Your task to perform on an android device: Go to location settings Image 0: 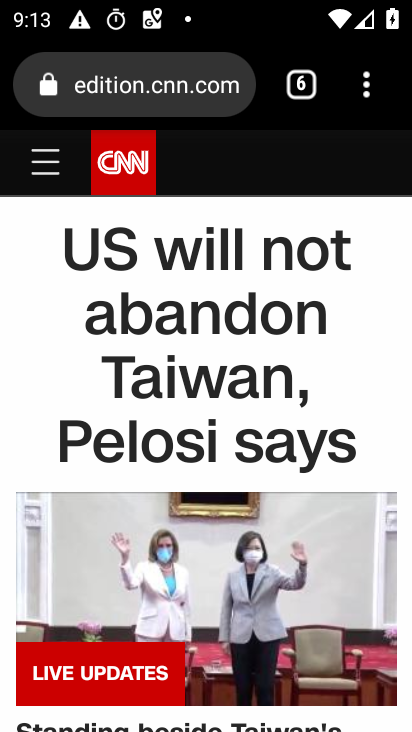
Step 0: press home button
Your task to perform on an android device: Go to location settings Image 1: 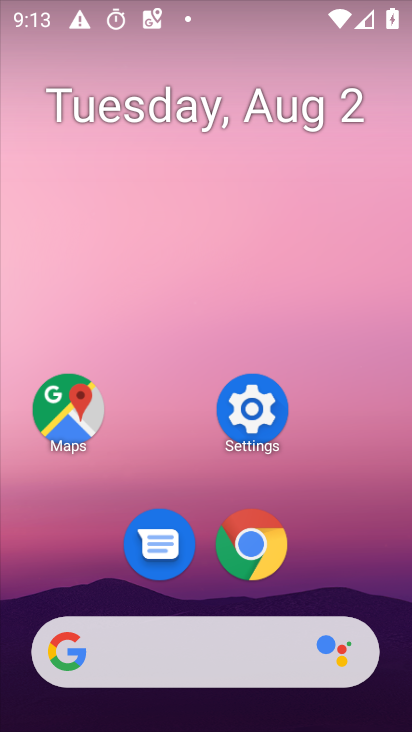
Step 1: click (261, 398)
Your task to perform on an android device: Go to location settings Image 2: 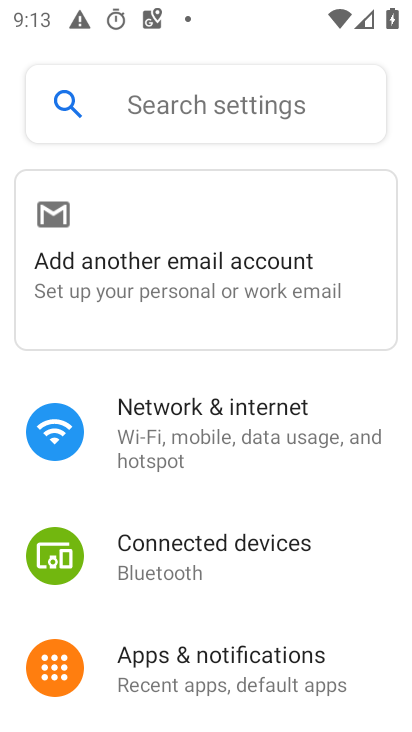
Step 2: drag from (157, 682) to (338, 216)
Your task to perform on an android device: Go to location settings Image 3: 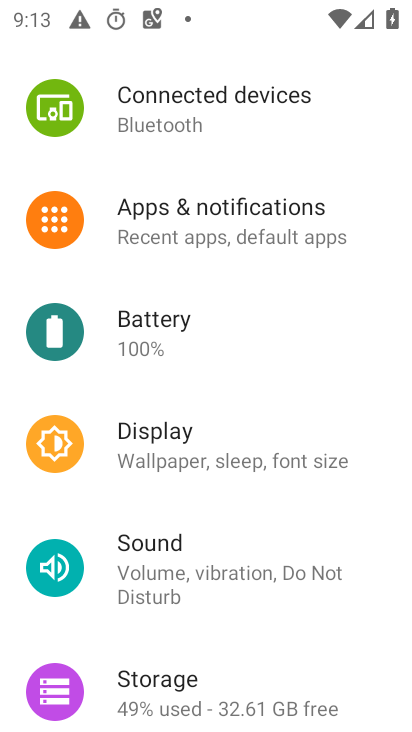
Step 3: drag from (172, 650) to (253, 130)
Your task to perform on an android device: Go to location settings Image 4: 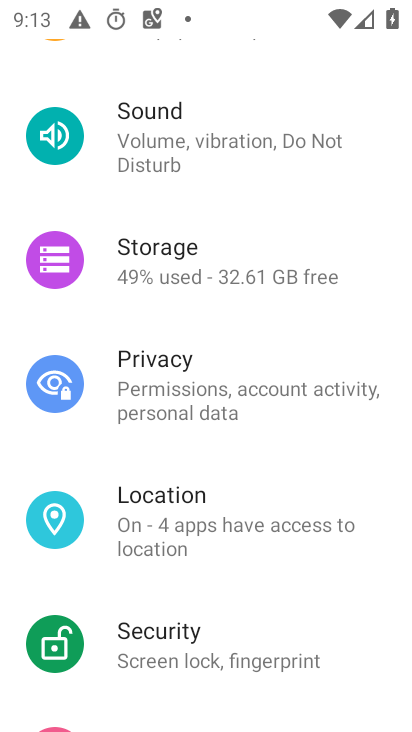
Step 4: click (154, 507)
Your task to perform on an android device: Go to location settings Image 5: 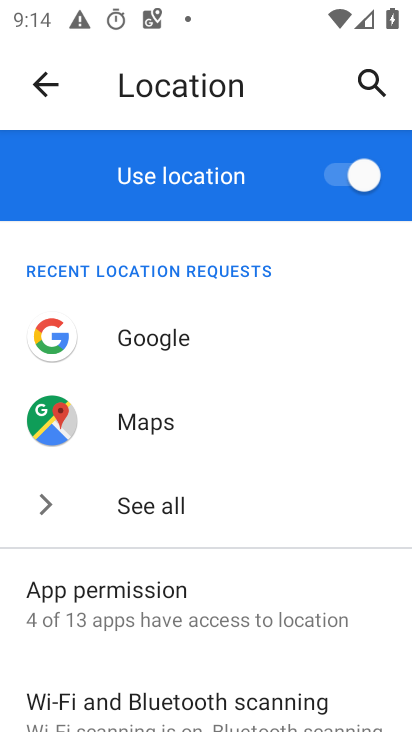
Step 5: task complete